Your task to perform on an android device: Show the shopping cart on bestbuy.com. Search for logitech g pro on bestbuy.com, select the first entry, add it to the cart, then select checkout. Image 0: 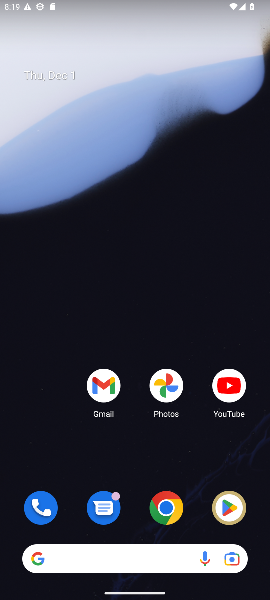
Step 0: click (162, 504)
Your task to perform on an android device: Show the shopping cart on bestbuy.com. Search for logitech g pro on bestbuy.com, select the first entry, add it to the cart, then select checkout. Image 1: 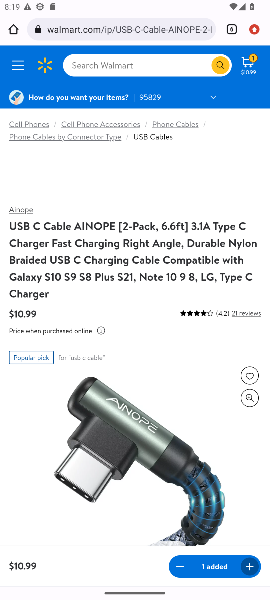
Step 1: click (233, 33)
Your task to perform on an android device: Show the shopping cart on bestbuy.com. Search for logitech g pro on bestbuy.com, select the first entry, add it to the cart, then select checkout. Image 2: 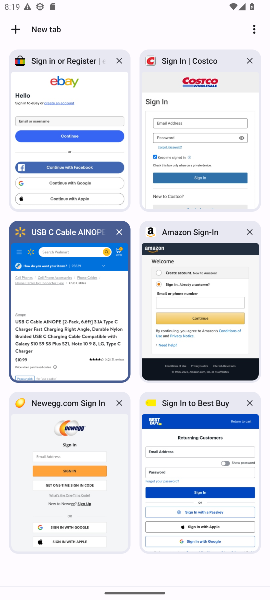
Step 2: click (177, 433)
Your task to perform on an android device: Show the shopping cart on bestbuy.com. Search for logitech g pro on bestbuy.com, select the first entry, add it to the cart, then select checkout. Image 3: 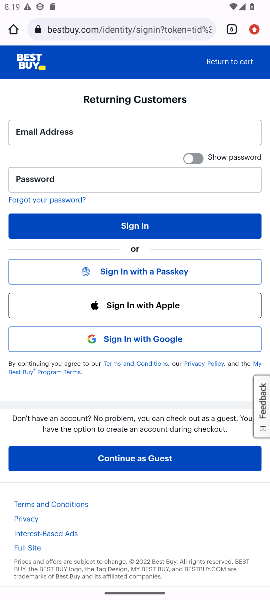
Step 3: click (222, 65)
Your task to perform on an android device: Show the shopping cart on bestbuy.com. Search for logitech g pro on bestbuy.com, select the first entry, add it to the cart, then select checkout. Image 4: 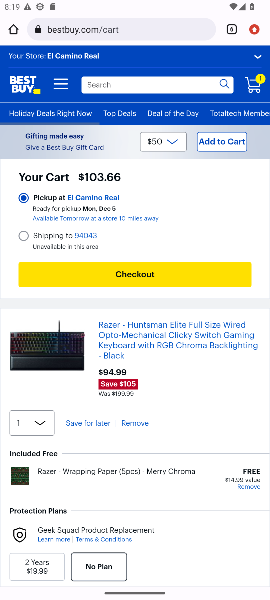
Step 4: drag from (121, 477) to (122, 362)
Your task to perform on an android device: Show the shopping cart on bestbuy.com. Search for logitech g pro on bestbuy.com, select the first entry, add it to the cart, then select checkout. Image 5: 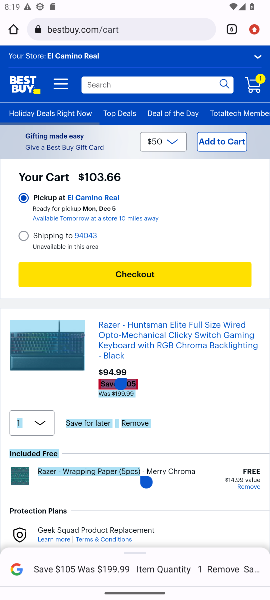
Step 5: click (173, 397)
Your task to perform on an android device: Show the shopping cart on bestbuy.com. Search for logitech g pro on bestbuy.com, select the first entry, add it to the cart, then select checkout. Image 6: 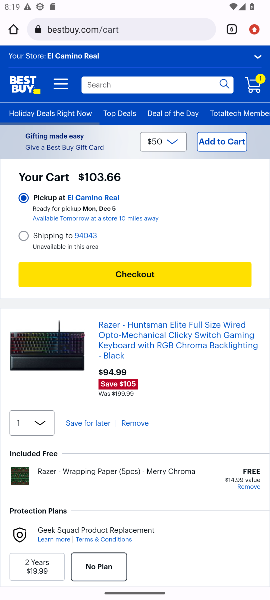
Step 6: drag from (173, 397) to (195, 424)
Your task to perform on an android device: Show the shopping cart on bestbuy.com. Search for logitech g pro on bestbuy.com, select the first entry, add it to the cart, then select checkout. Image 7: 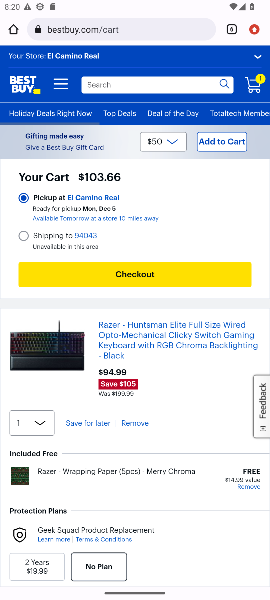
Step 7: click (112, 83)
Your task to perform on an android device: Show the shopping cart on bestbuy.com. Search for logitech g pro on bestbuy.com, select the first entry, add it to the cart, then select checkout. Image 8: 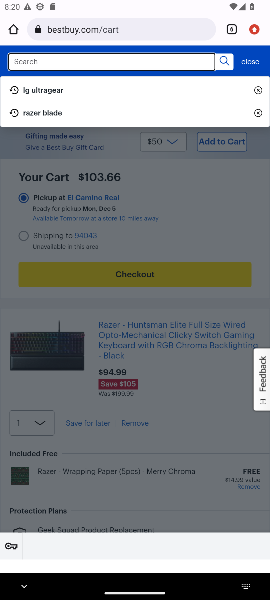
Step 8: type "logitech g pro"
Your task to perform on an android device: Show the shopping cart on bestbuy.com. Search for logitech g pro on bestbuy.com, select the first entry, add it to the cart, then select checkout. Image 9: 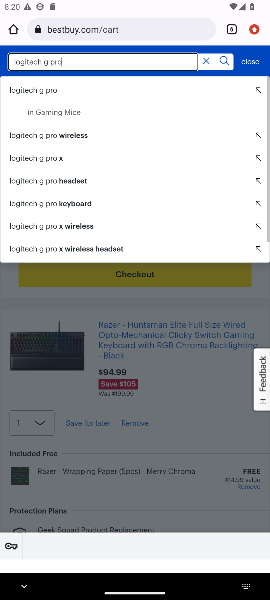
Step 9: click (225, 63)
Your task to perform on an android device: Show the shopping cart on bestbuy.com. Search for logitech g pro on bestbuy.com, select the first entry, add it to the cart, then select checkout. Image 10: 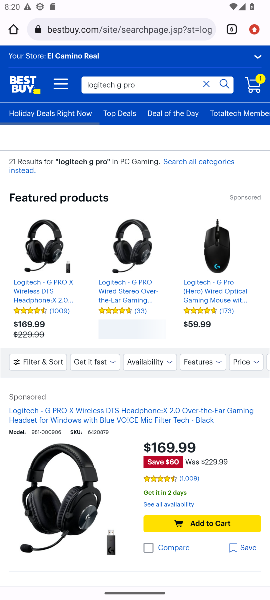
Step 10: click (81, 512)
Your task to perform on an android device: Show the shopping cart on bestbuy.com. Search for logitech g pro on bestbuy.com, select the first entry, add it to the cart, then select checkout. Image 11: 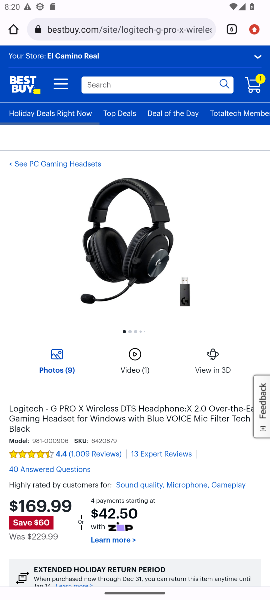
Step 11: drag from (174, 517) to (133, 198)
Your task to perform on an android device: Show the shopping cart on bestbuy.com. Search for logitech g pro on bestbuy.com, select the first entry, add it to the cart, then select checkout. Image 12: 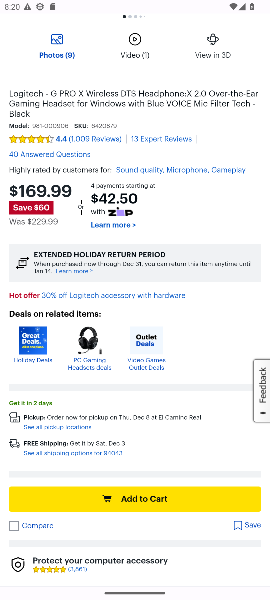
Step 12: click (76, 498)
Your task to perform on an android device: Show the shopping cart on bestbuy.com. Search for logitech g pro on bestbuy.com, select the first entry, add it to the cart, then select checkout. Image 13: 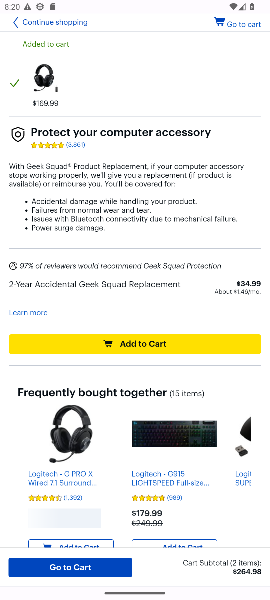
Step 13: click (60, 567)
Your task to perform on an android device: Show the shopping cart on bestbuy.com. Search for logitech g pro on bestbuy.com, select the first entry, add it to the cart, then select checkout. Image 14: 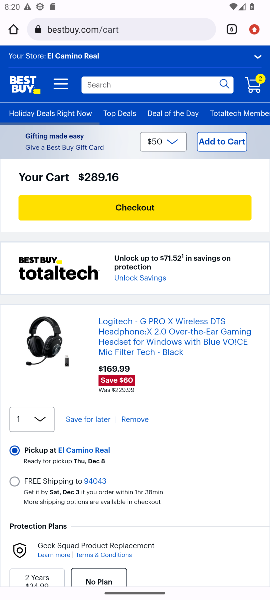
Step 14: click (139, 210)
Your task to perform on an android device: Show the shopping cart on bestbuy.com. Search for logitech g pro on bestbuy.com, select the first entry, add it to the cart, then select checkout. Image 15: 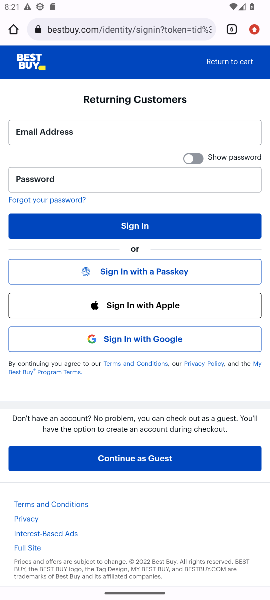
Step 15: task complete